Your task to perform on an android device: Clear all items from cart on ebay.com. Add usb-c to usb-b to the cart on ebay.com, then select checkout. Image 0: 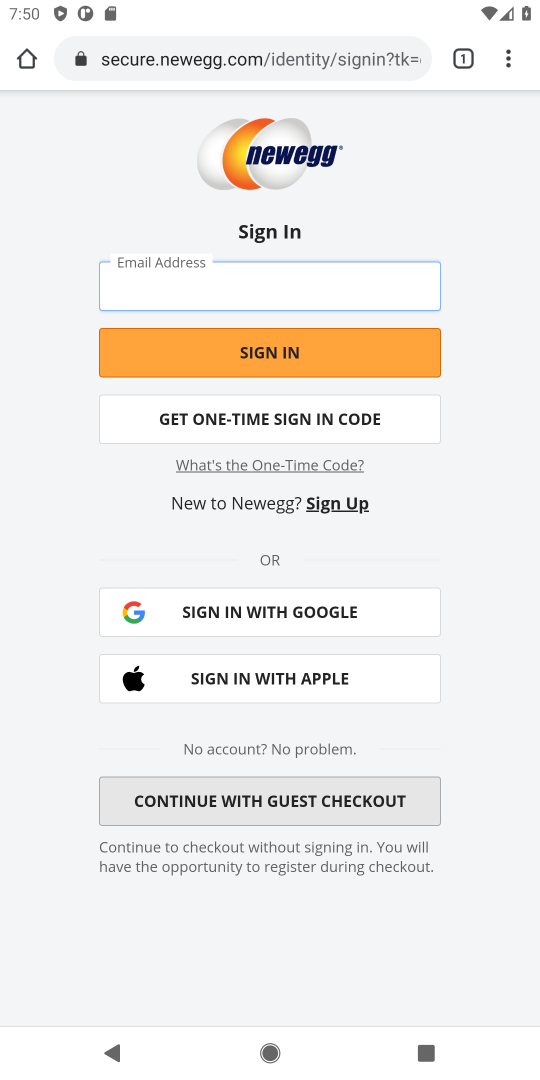
Step 0: click (226, 57)
Your task to perform on an android device: Clear all items from cart on ebay.com. Add usb-c to usb-b to the cart on ebay.com, then select checkout. Image 1: 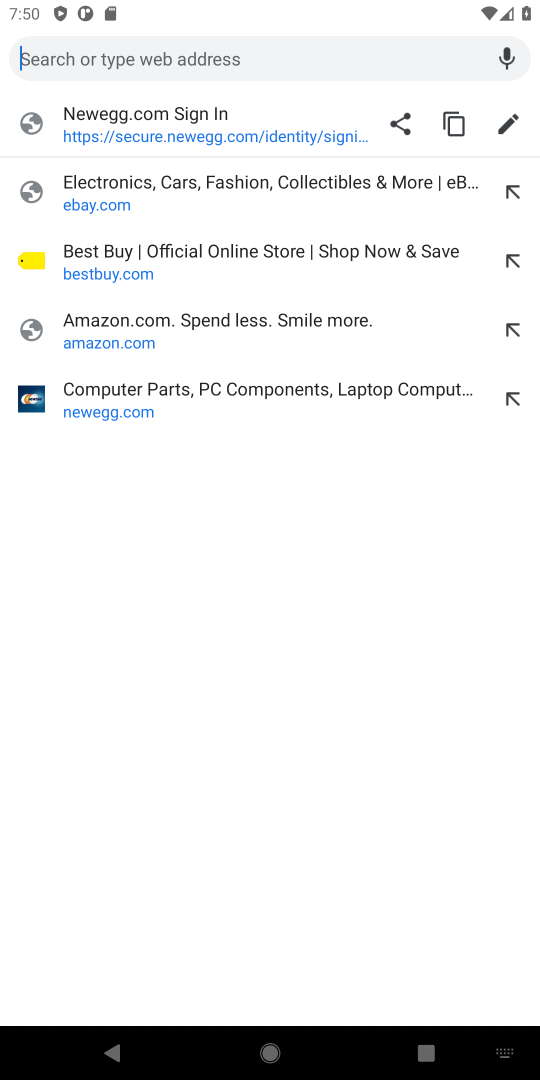
Step 1: click (88, 205)
Your task to perform on an android device: Clear all items from cart on ebay.com. Add usb-c to usb-b to the cart on ebay.com, then select checkout. Image 2: 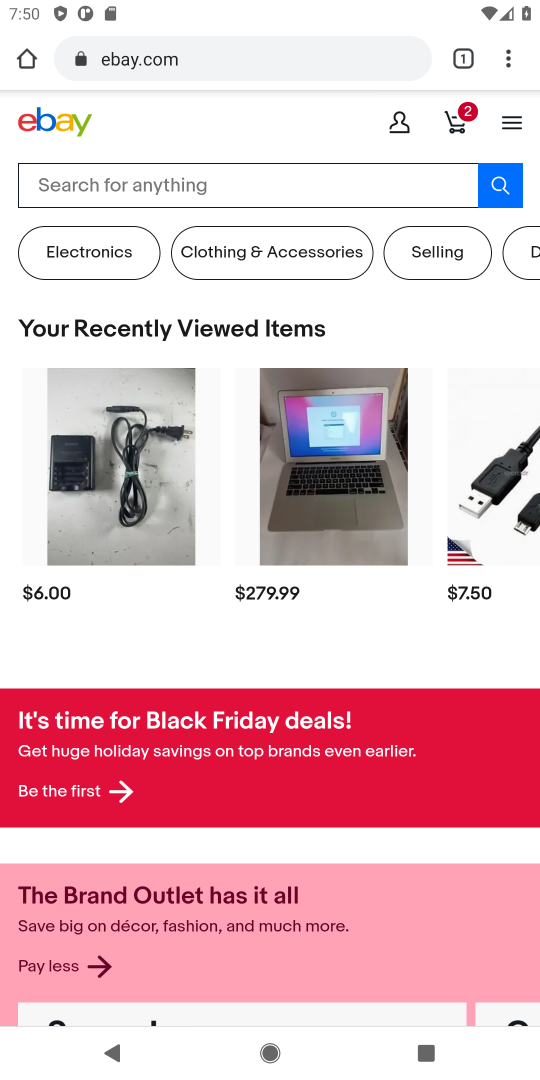
Step 2: click (462, 127)
Your task to perform on an android device: Clear all items from cart on ebay.com. Add usb-c to usb-b to the cart on ebay.com, then select checkout. Image 3: 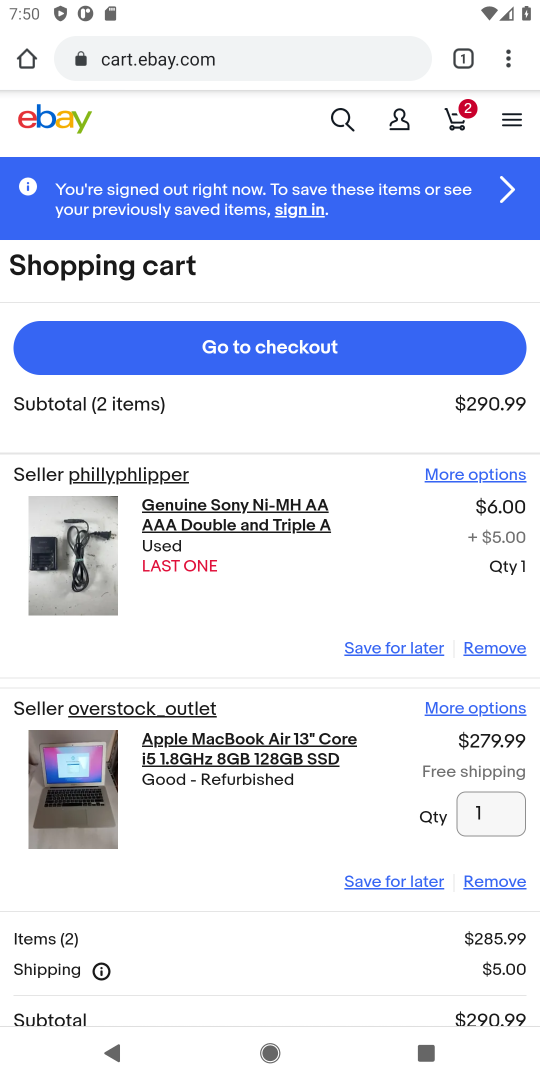
Step 3: click (479, 651)
Your task to perform on an android device: Clear all items from cart on ebay.com. Add usb-c to usb-b to the cart on ebay.com, then select checkout. Image 4: 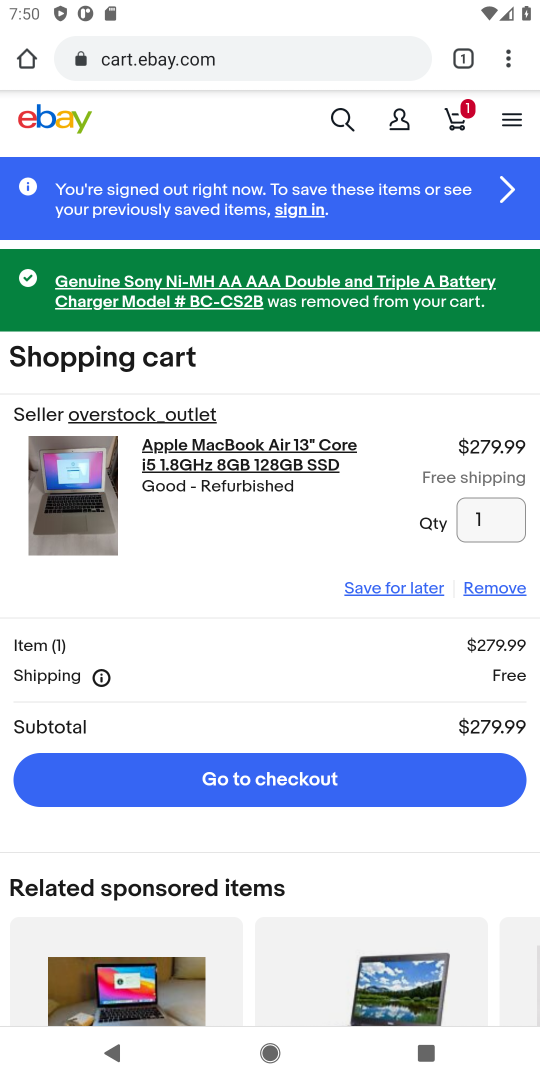
Step 4: click (492, 591)
Your task to perform on an android device: Clear all items from cart on ebay.com. Add usb-c to usb-b to the cart on ebay.com, then select checkout. Image 5: 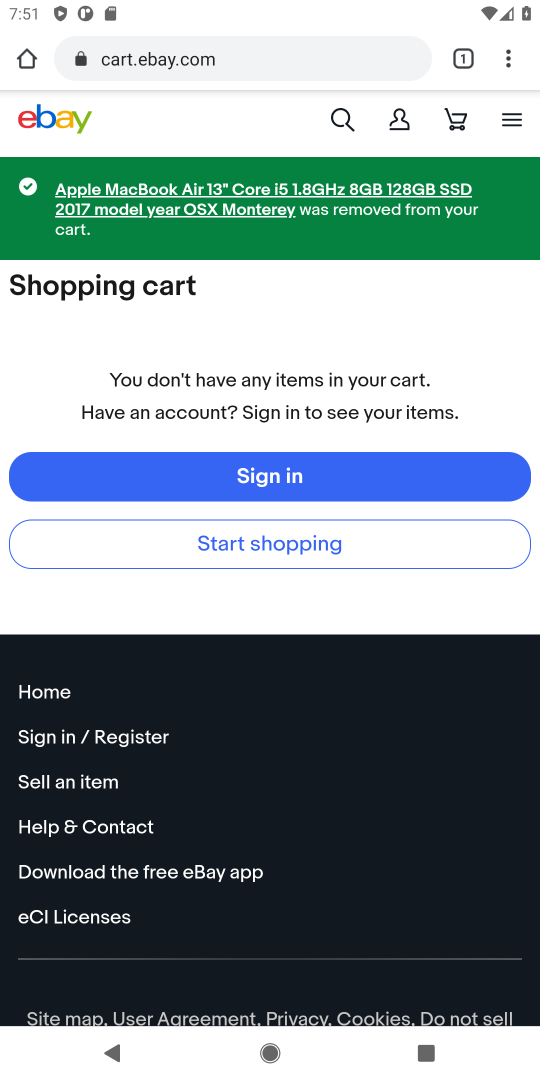
Step 5: click (341, 120)
Your task to perform on an android device: Clear all items from cart on ebay.com. Add usb-c to usb-b to the cart on ebay.com, then select checkout. Image 6: 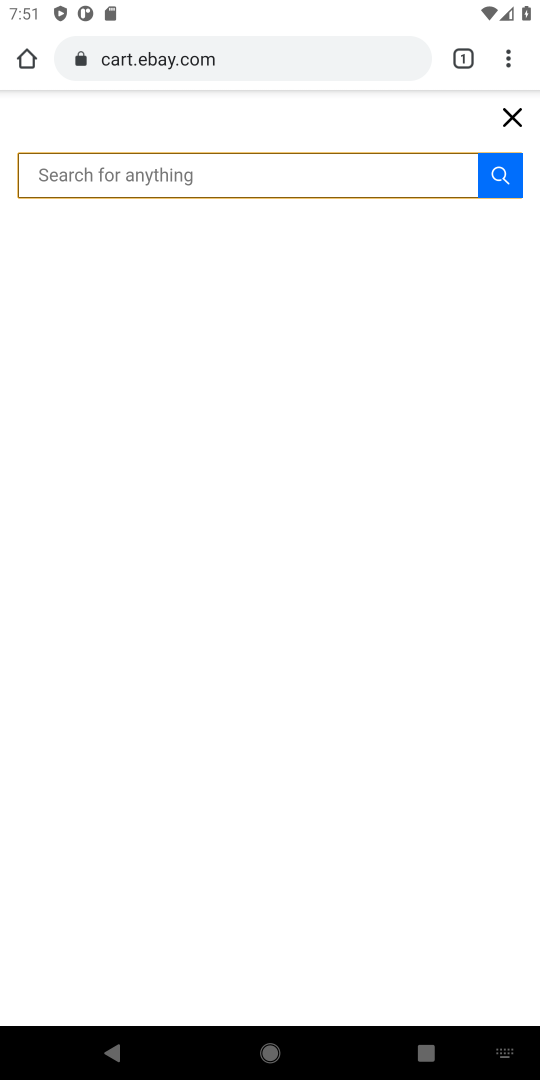
Step 6: type " usb-c to usb-b"
Your task to perform on an android device: Clear all items from cart on ebay.com. Add usb-c to usb-b to the cart on ebay.com, then select checkout. Image 7: 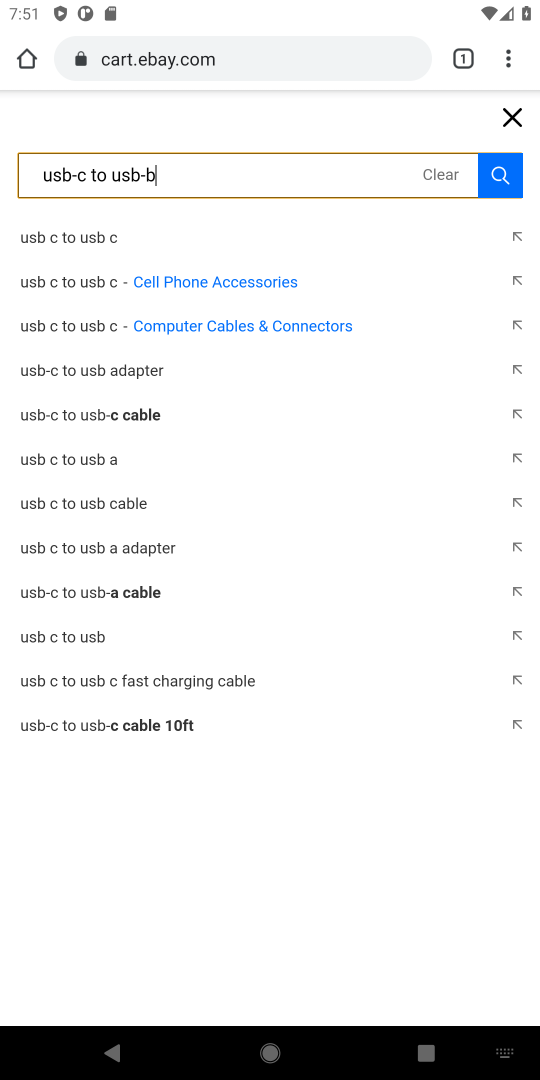
Step 7: click (507, 171)
Your task to perform on an android device: Clear all items from cart on ebay.com. Add usb-c to usb-b to the cart on ebay.com, then select checkout. Image 8: 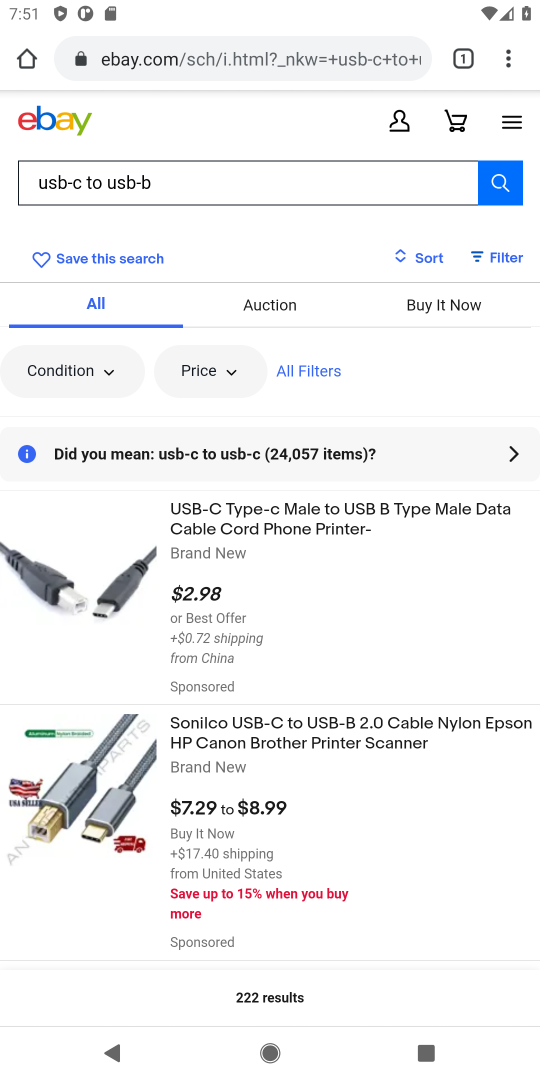
Step 8: click (81, 601)
Your task to perform on an android device: Clear all items from cart on ebay.com. Add usb-c to usb-b to the cart on ebay.com, then select checkout. Image 9: 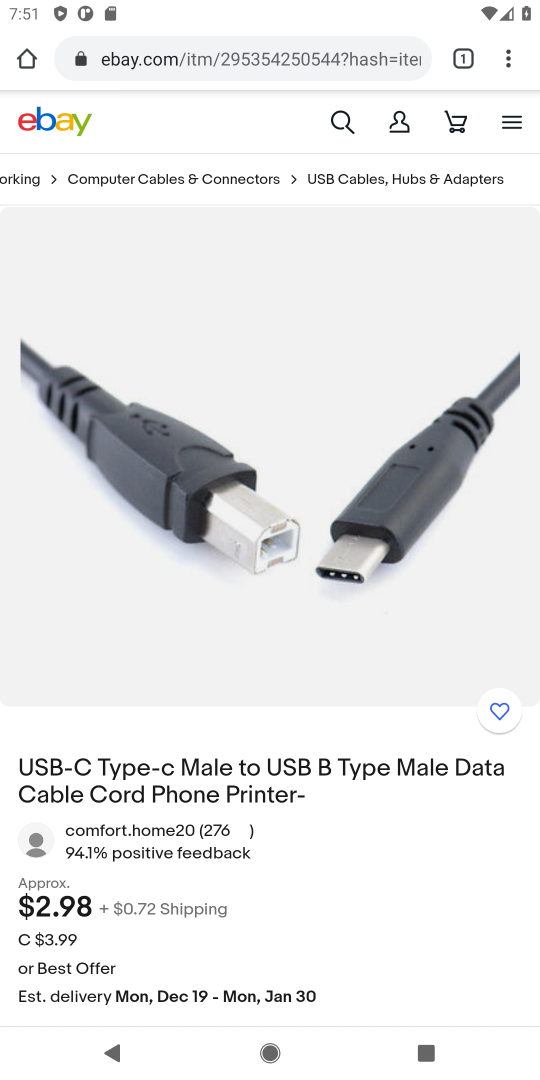
Step 9: drag from (229, 798) to (213, 377)
Your task to perform on an android device: Clear all items from cart on ebay.com. Add usb-c to usb-b to the cart on ebay.com, then select checkout. Image 10: 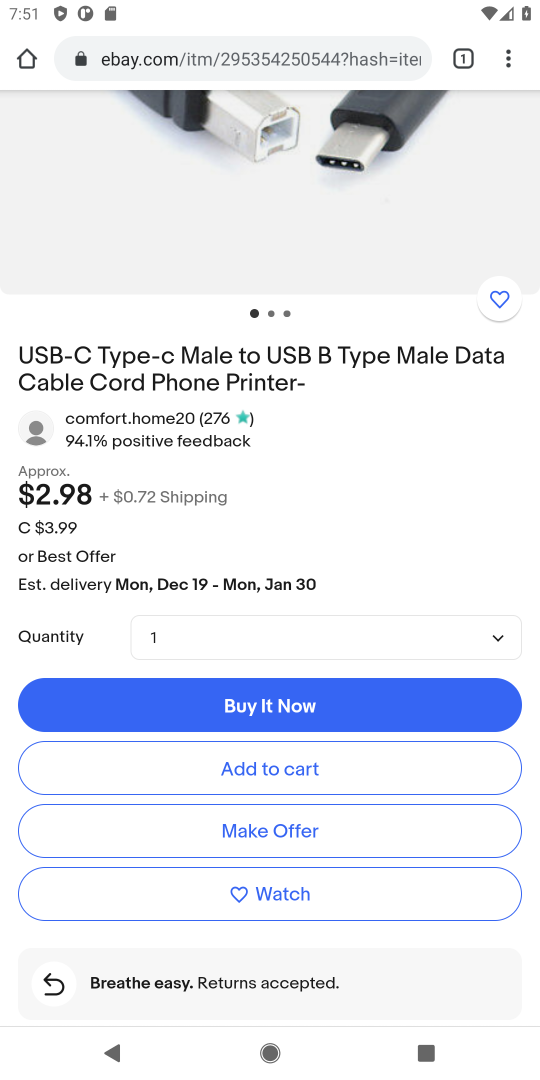
Step 10: click (234, 765)
Your task to perform on an android device: Clear all items from cart on ebay.com. Add usb-c to usb-b to the cart on ebay.com, then select checkout. Image 11: 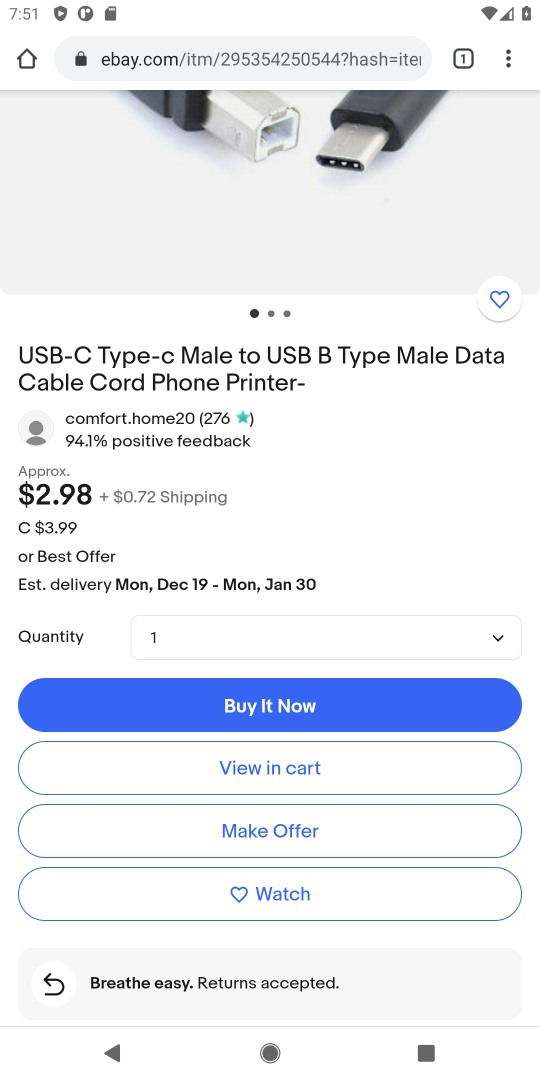
Step 11: click (234, 765)
Your task to perform on an android device: Clear all items from cart on ebay.com. Add usb-c to usb-b to the cart on ebay.com, then select checkout. Image 12: 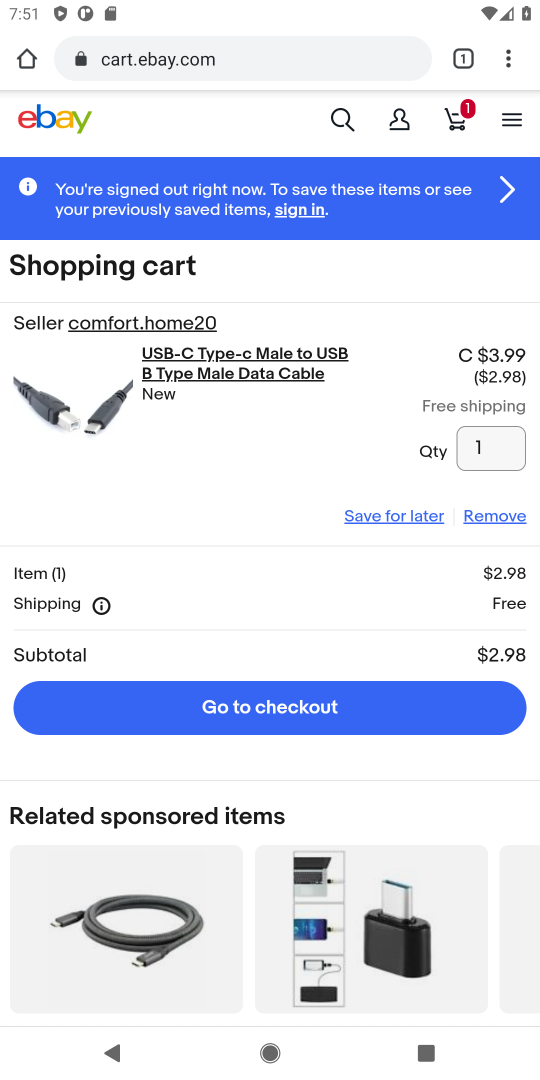
Step 12: click (260, 722)
Your task to perform on an android device: Clear all items from cart on ebay.com. Add usb-c to usb-b to the cart on ebay.com, then select checkout. Image 13: 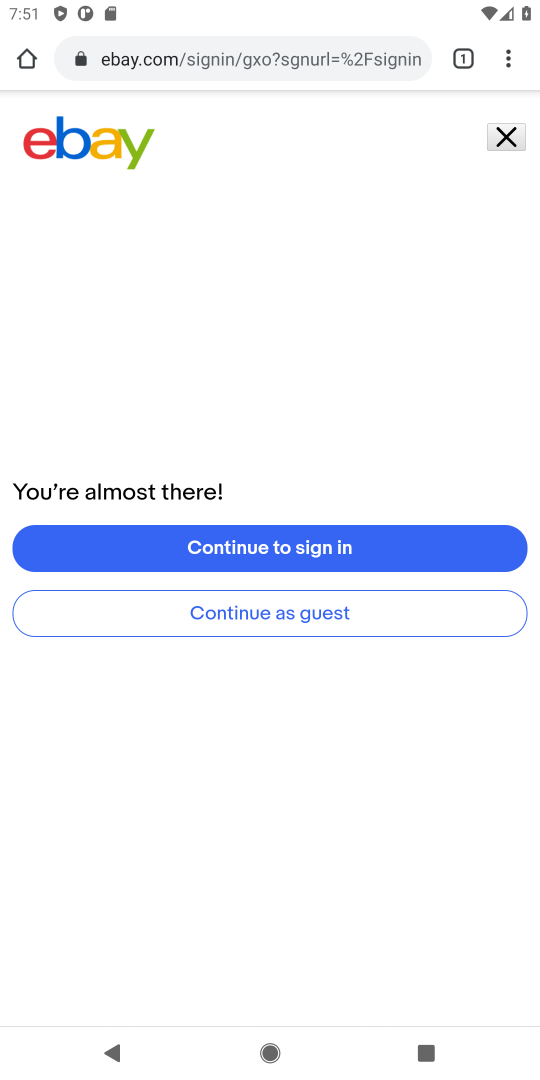
Step 13: task complete